Your task to perform on an android device: turn pop-ups on in chrome Image 0: 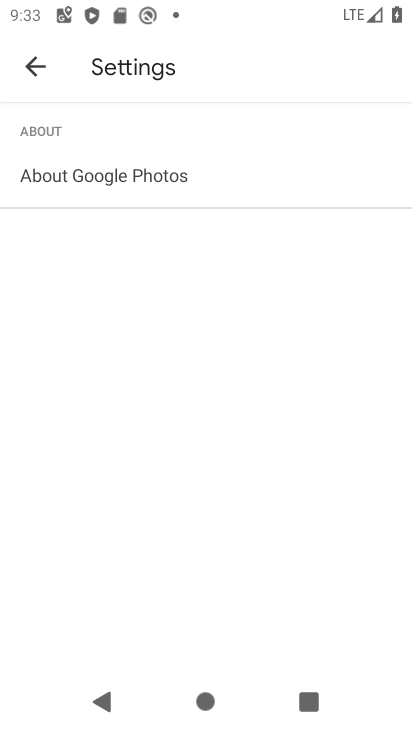
Step 0: press home button
Your task to perform on an android device: turn pop-ups on in chrome Image 1: 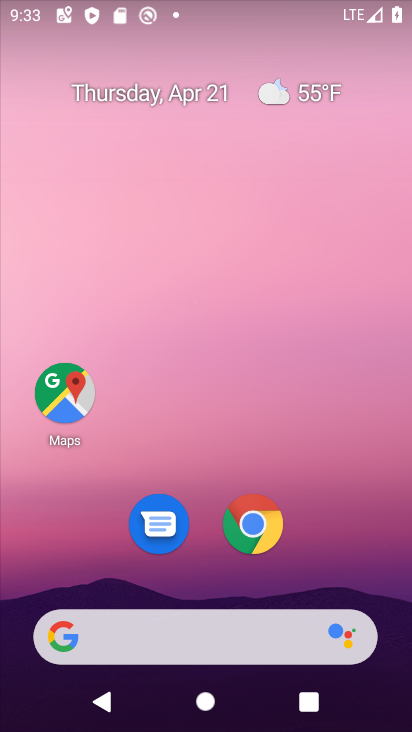
Step 1: click (251, 518)
Your task to perform on an android device: turn pop-ups on in chrome Image 2: 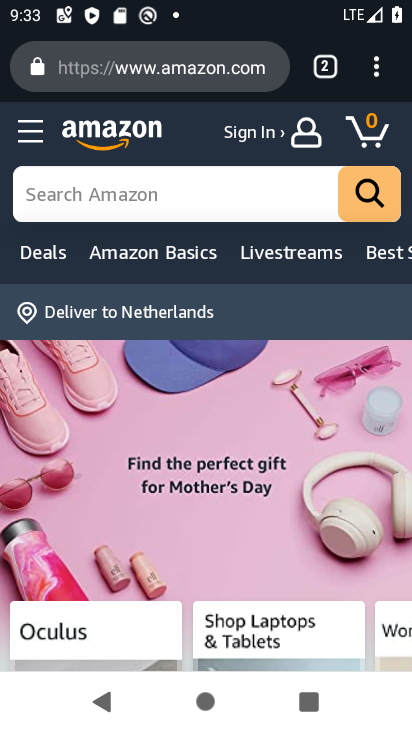
Step 2: click (376, 73)
Your task to perform on an android device: turn pop-ups on in chrome Image 3: 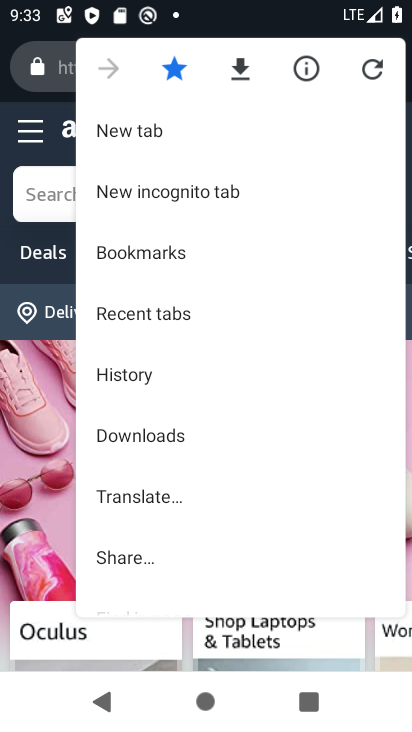
Step 3: drag from (254, 480) to (255, 169)
Your task to perform on an android device: turn pop-ups on in chrome Image 4: 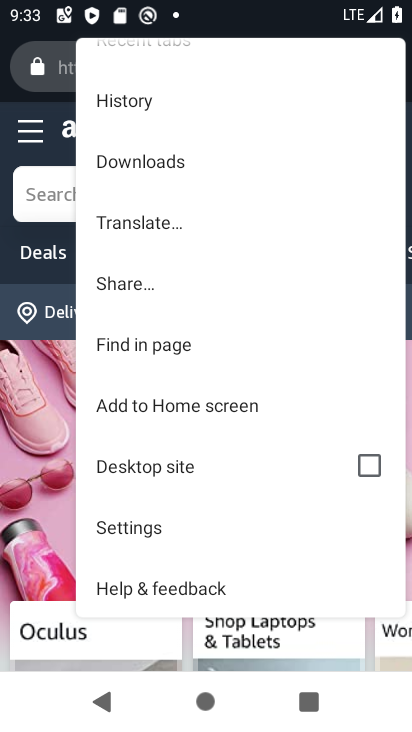
Step 4: drag from (239, 504) to (245, 227)
Your task to perform on an android device: turn pop-ups on in chrome Image 5: 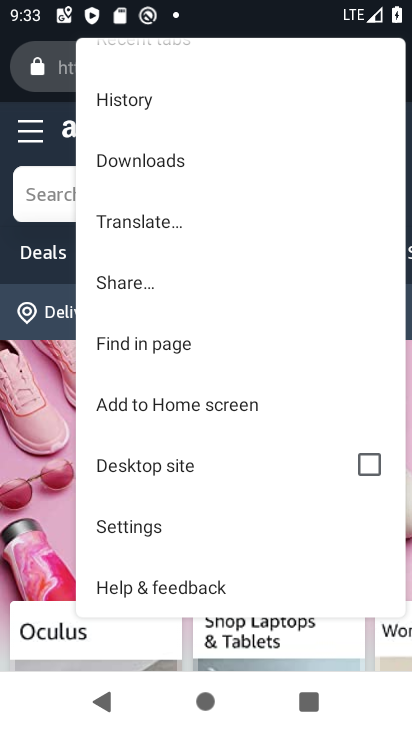
Step 5: click (206, 527)
Your task to perform on an android device: turn pop-ups on in chrome Image 6: 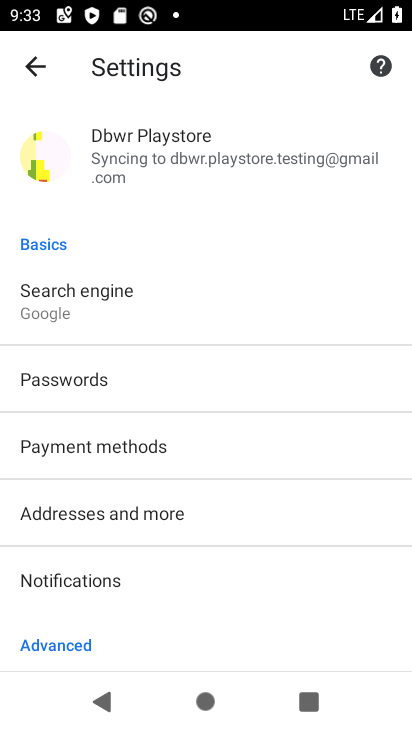
Step 6: drag from (259, 565) to (253, 183)
Your task to perform on an android device: turn pop-ups on in chrome Image 7: 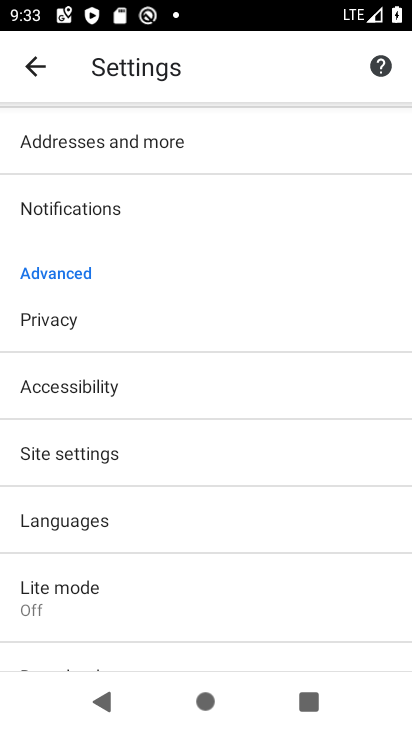
Step 7: click (181, 453)
Your task to perform on an android device: turn pop-ups on in chrome Image 8: 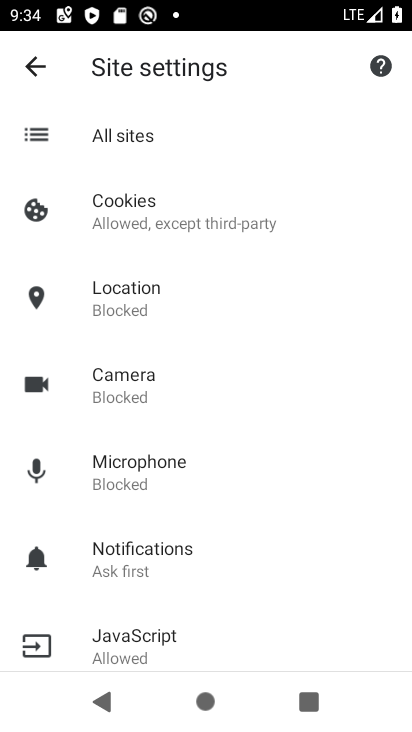
Step 8: drag from (259, 482) to (255, 205)
Your task to perform on an android device: turn pop-ups on in chrome Image 9: 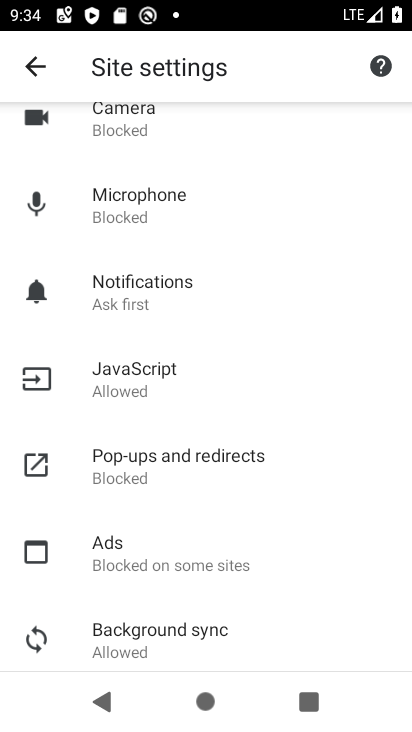
Step 9: click (213, 462)
Your task to perform on an android device: turn pop-ups on in chrome Image 10: 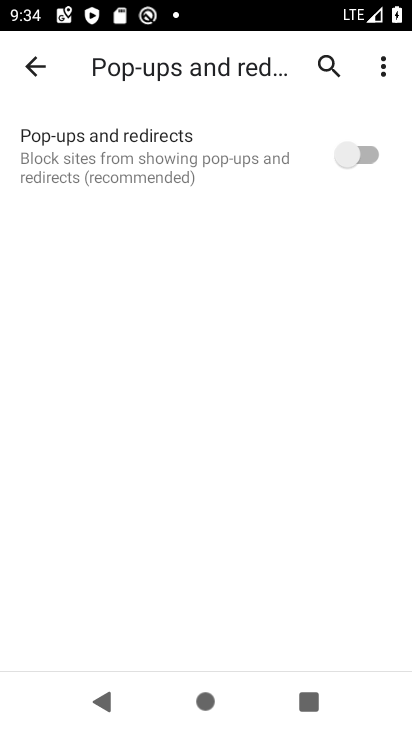
Step 10: click (358, 151)
Your task to perform on an android device: turn pop-ups on in chrome Image 11: 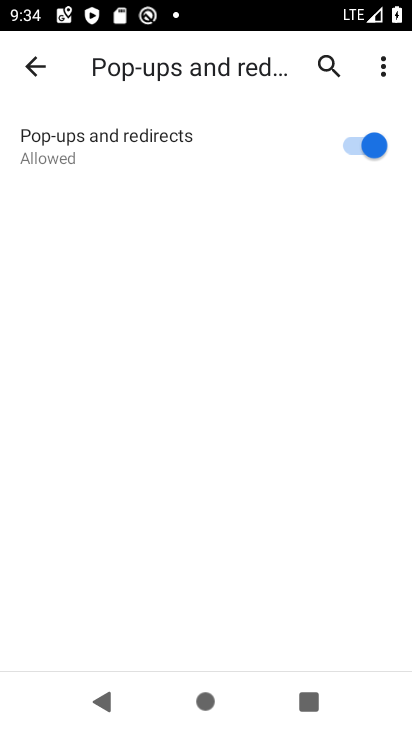
Step 11: task complete